Your task to perform on an android device: allow cookies in the chrome app Image 0: 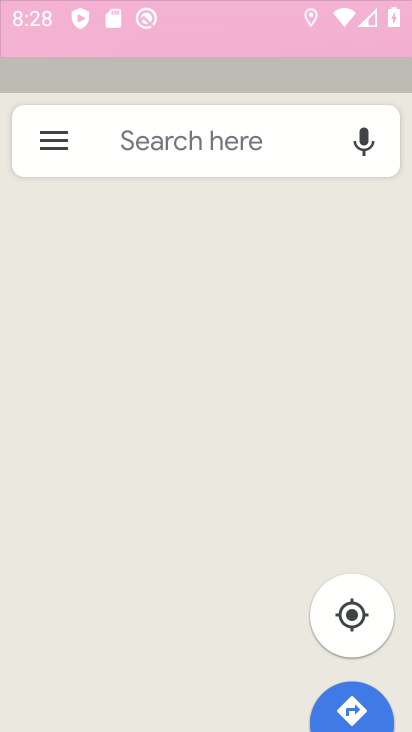
Step 0: click (262, 135)
Your task to perform on an android device: allow cookies in the chrome app Image 1: 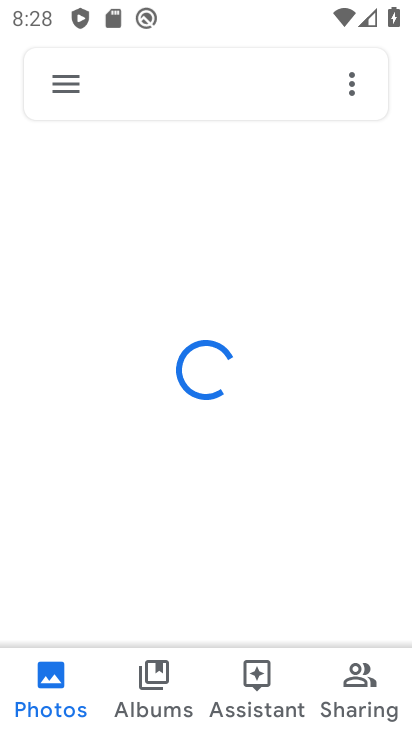
Step 1: press back button
Your task to perform on an android device: allow cookies in the chrome app Image 2: 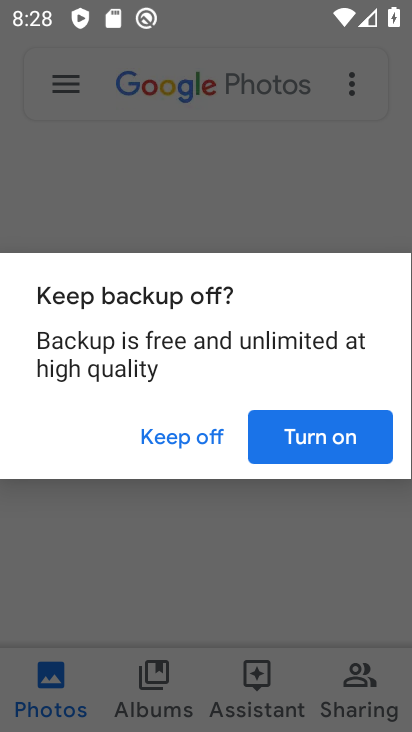
Step 2: press back button
Your task to perform on an android device: allow cookies in the chrome app Image 3: 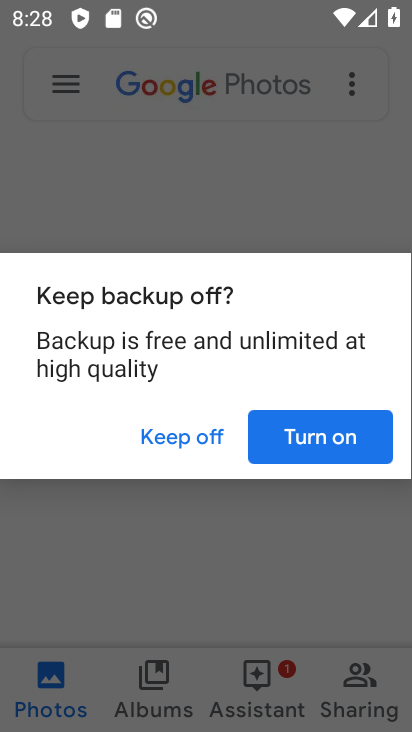
Step 3: press back button
Your task to perform on an android device: allow cookies in the chrome app Image 4: 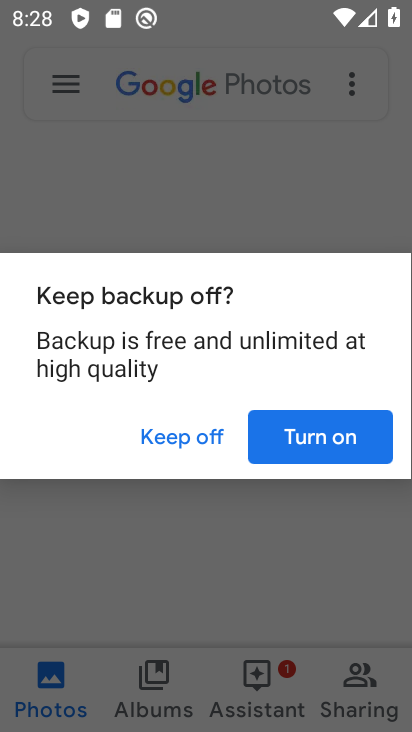
Step 4: press home button
Your task to perform on an android device: allow cookies in the chrome app Image 5: 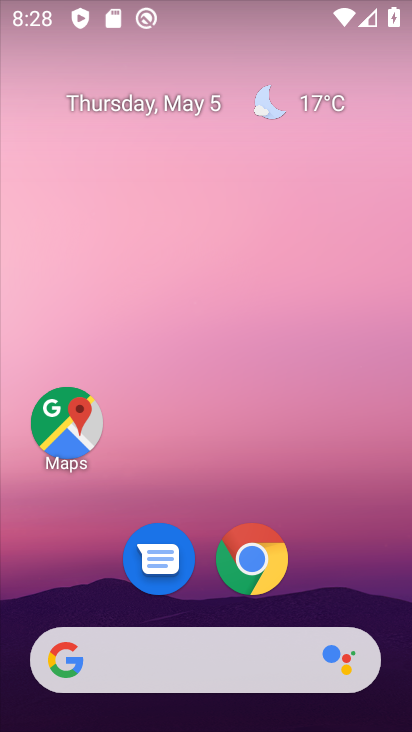
Step 5: click (256, 563)
Your task to perform on an android device: allow cookies in the chrome app Image 6: 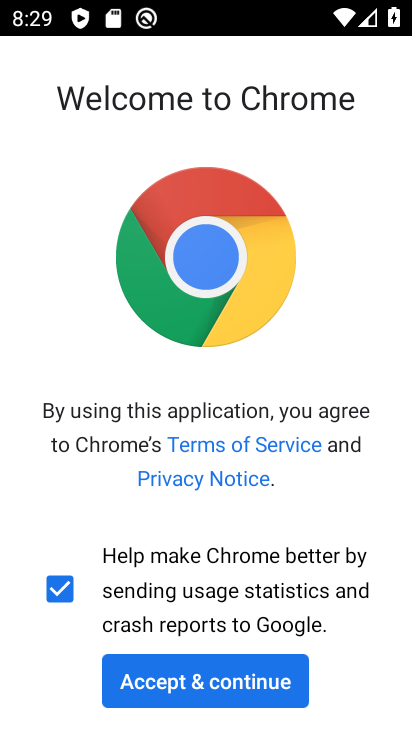
Step 6: click (252, 671)
Your task to perform on an android device: allow cookies in the chrome app Image 7: 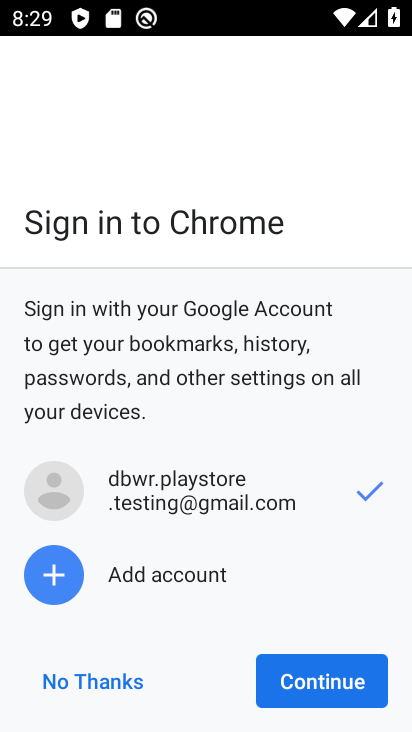
Step 7: click (326, 663)
Your task to perform on an android device: allow cookies in the chrome app Image 8: 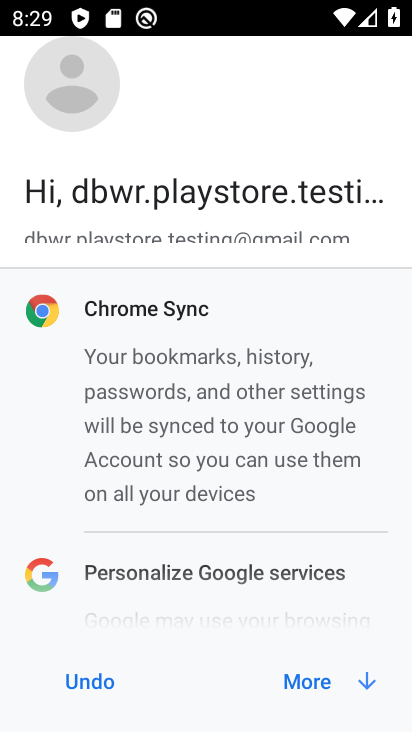
Step 8: click (316, 687)
Your task to perform on an android device: allow cookies in the chrome app Image 9: 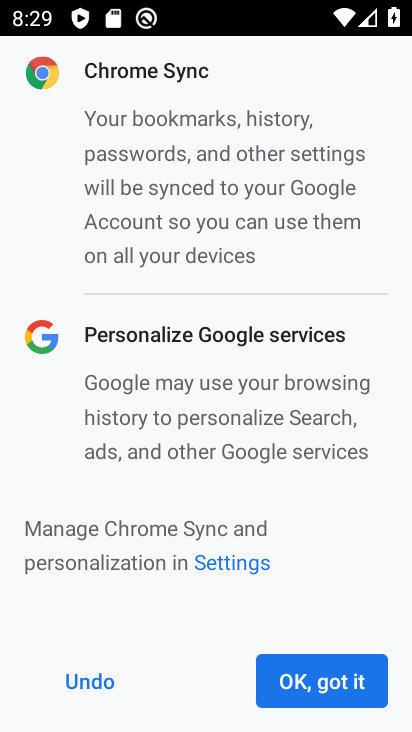
Step 9: click (339, 676)
Your task to perform on an android device: allow cookies in the chrome app Image 10: 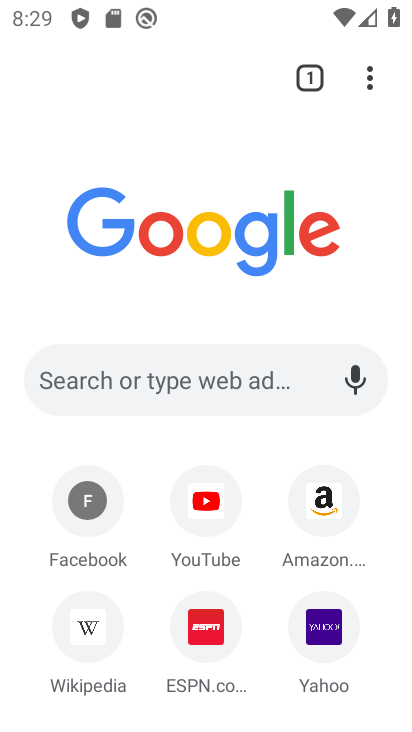
Step 10: click (366, 66)
Your task to perform on an android device: allow cookies in the chrome app Image 11: 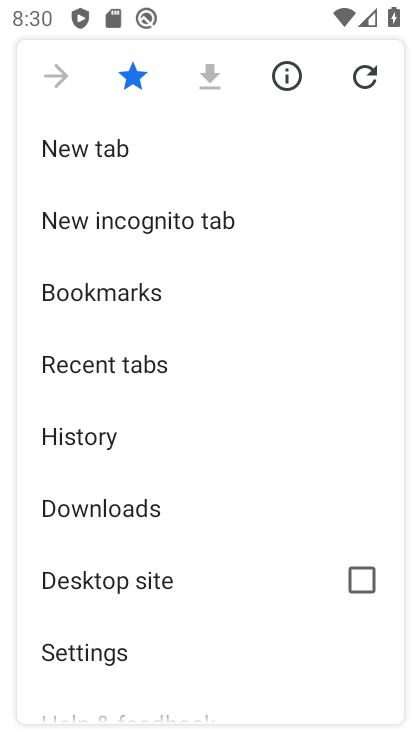
Step 11: click (87, 644)
Your task to perform on an android device: allow cookies in the chrome app Image 12: 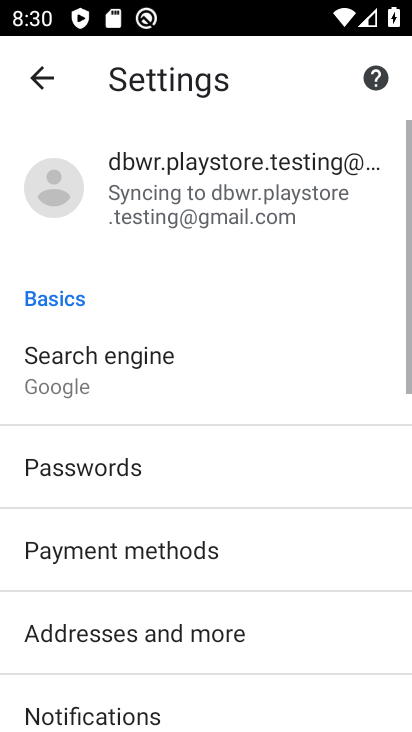
Step 12: drag from (120, 625) to (170, 290)
Your task to perform on an android device: allow cookies in the chrome app Image 13: 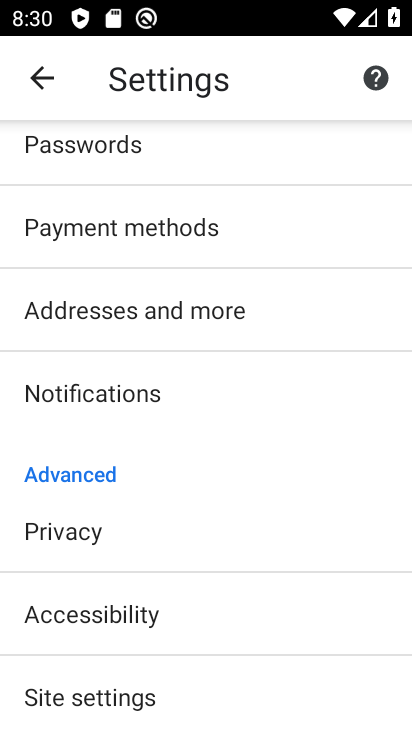
Step 13: click (115, 704)
Your task to perform on an android device: allow cookies in the chrome app Image 14: 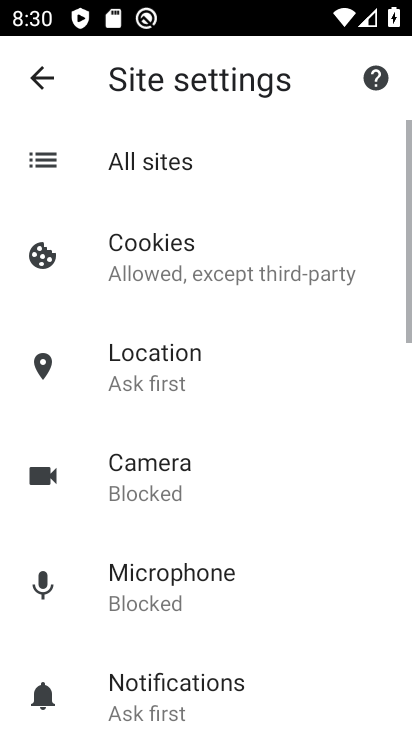
Step 14: drag from (153, 671) to (182, 725)
Your task to perform on an android device: allow cookies in the chrome app Image 15: 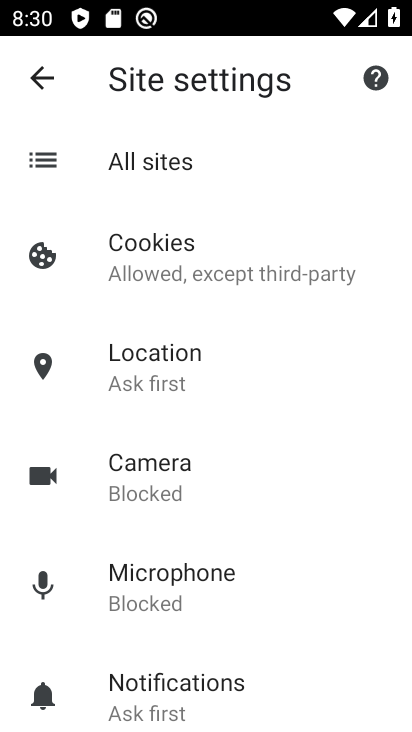
Step 15: click (136, 244)
Your task to perform on an android device: allow cookies in the chrome app Image 16: 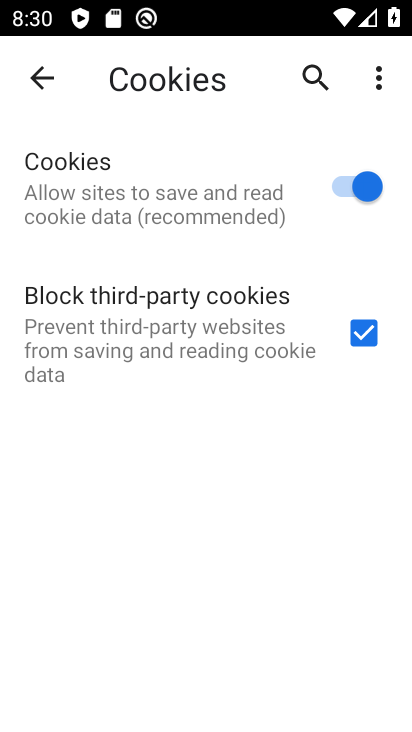
Step 16: task complete